Your task to perform on an android device: see sites visited before in the chrome app Image 0: 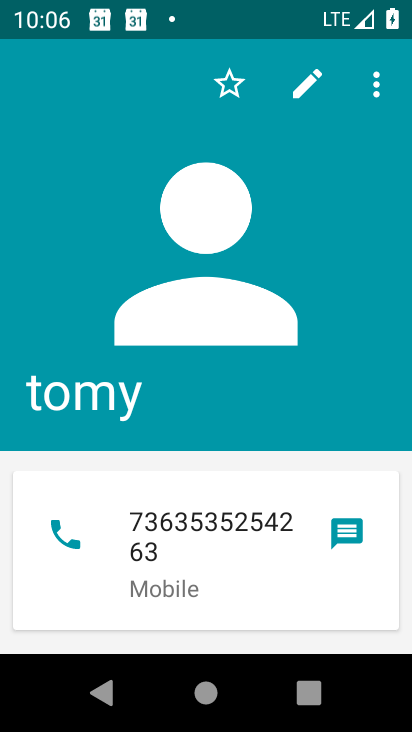
Step 0: press home button
Your task to perform on an android device: see sites visited before in the chrome app Image 1: 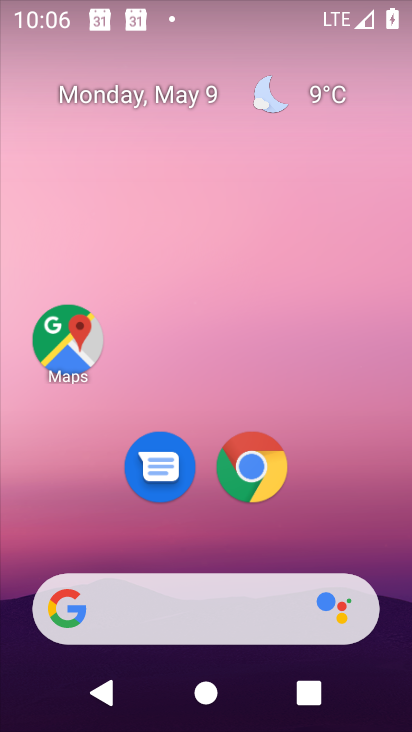
Step 1: click (255, 477)
Your task to perform on an android device: see sites visited before in the chrome app Image 2: 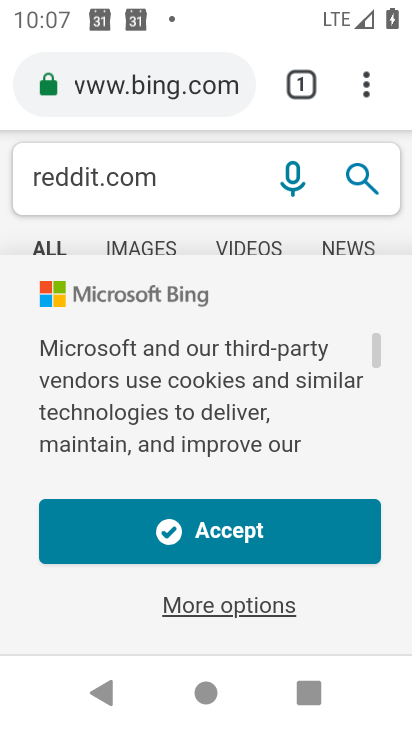
Step 2: click (365, 86)
Your task to perform on an android device: see sites visited before in the chrome app Image 3: 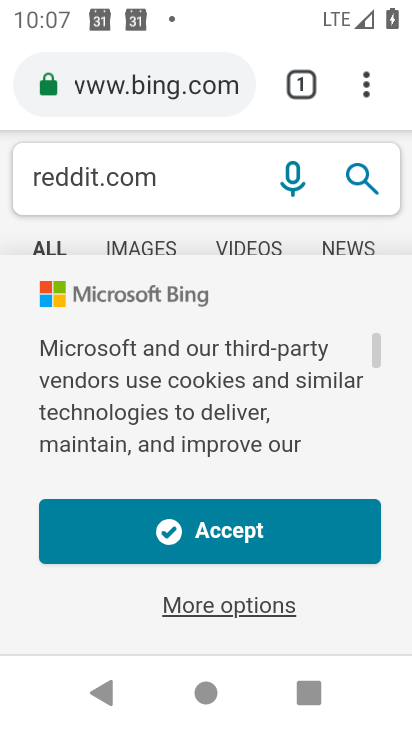
Step 3: task complete